Your task to perform on an android device: turn on bluetooth scan Image 0: 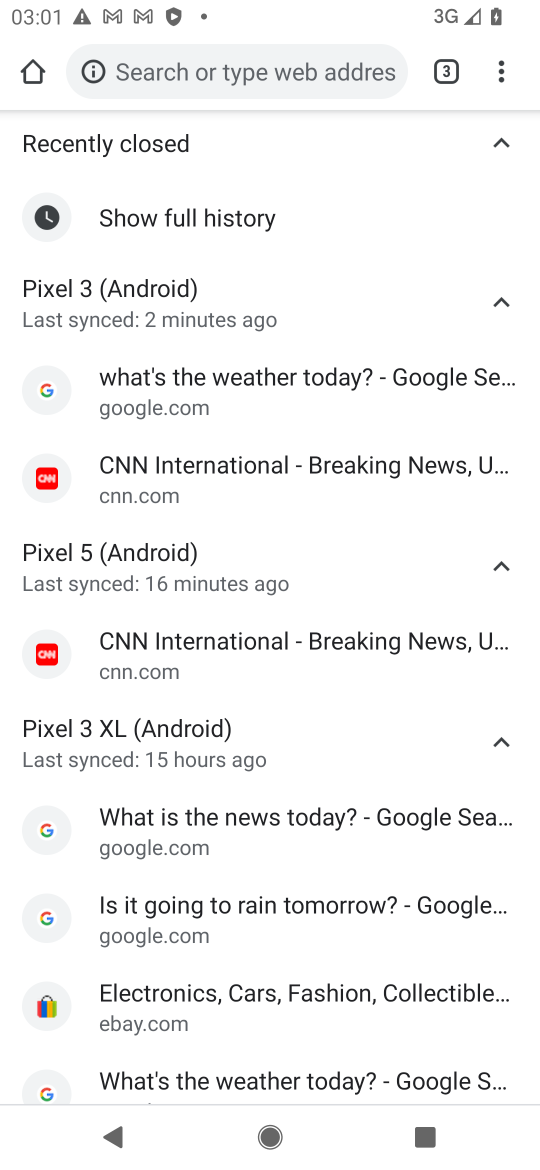
Step 0: press home button
Your task to perform on an android device: turn on bluetooth scan Image 1: 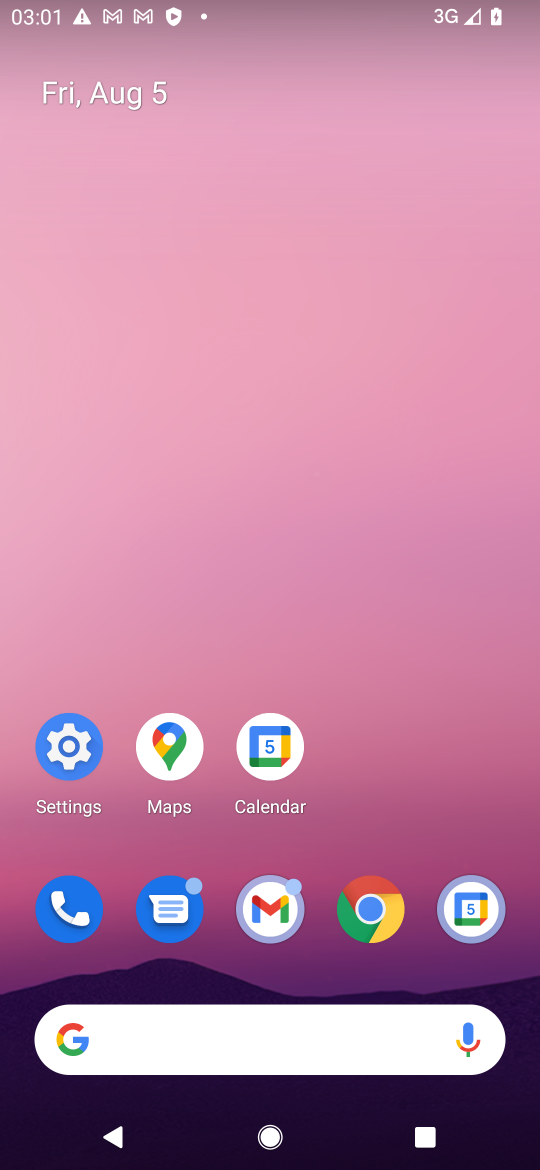
Step 1: click (69, 746)
Your task to perform on an android device: turn on bluetooth scan Image 2: 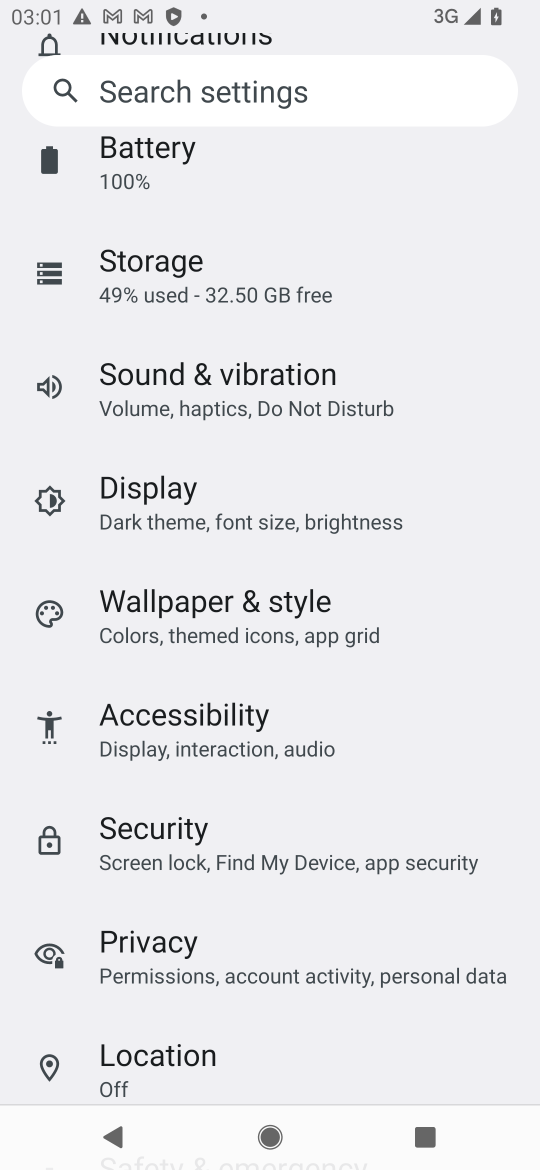
Step 2: drag from (361, 904) to (334, 412)
Your task to perform on an android device: turn on bluetooth scan Image 3: 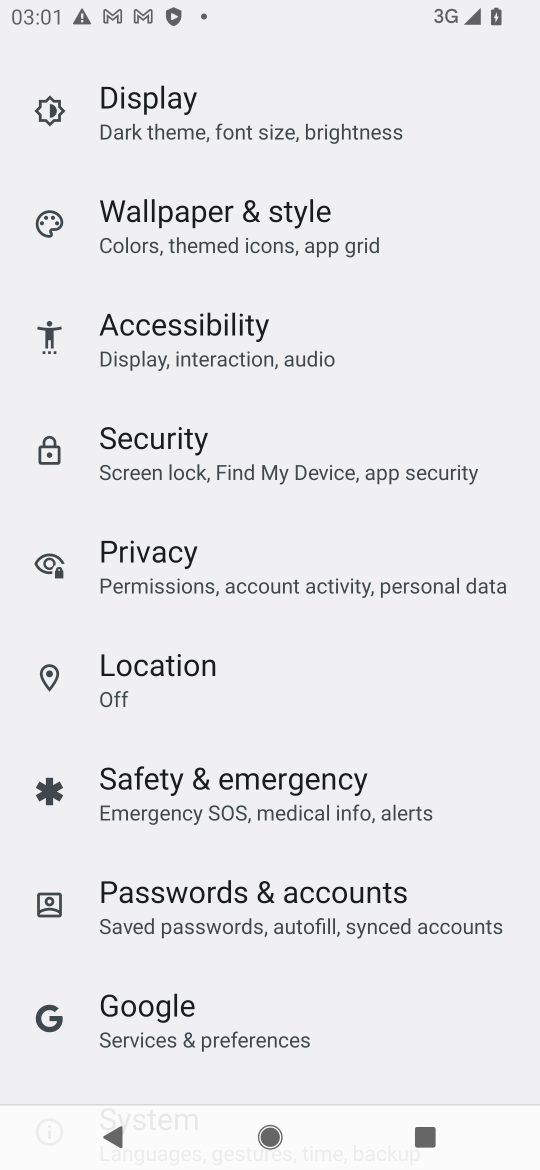
Step 3: click (176, 653)
Your task to perform on an android device: turn on bluetooth scan Image 4: 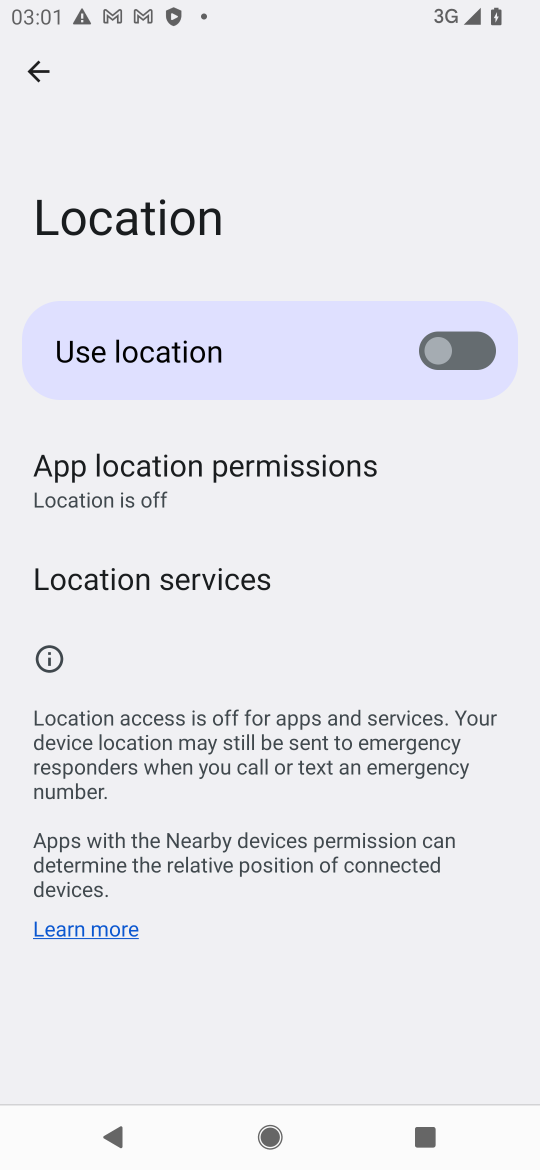
Step 4: click (153, 475)
Your task to perform on an android device: turn on bluetooth scan Image 5: 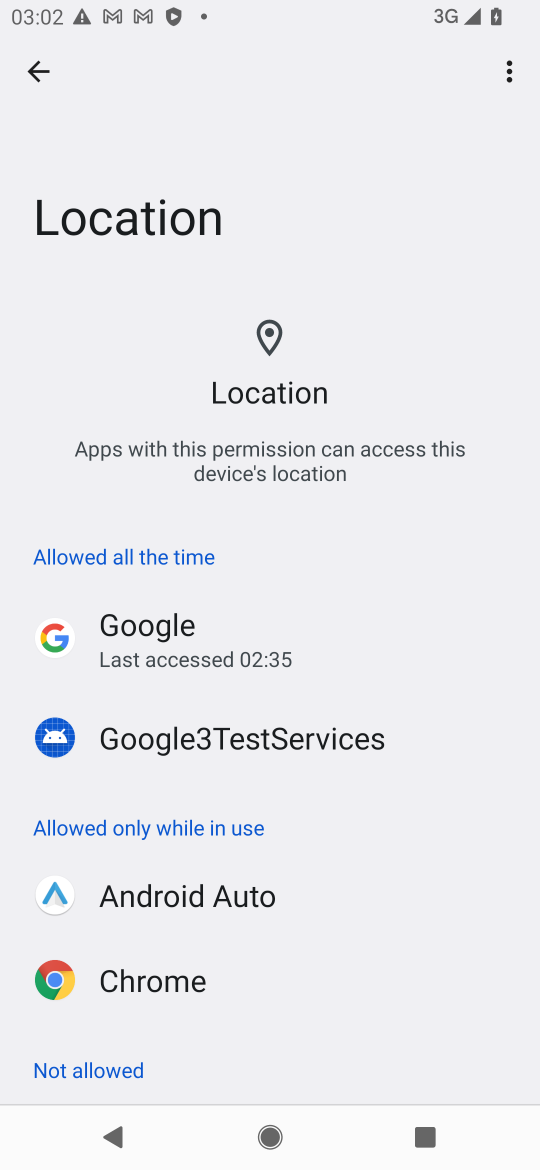
Step 5: drag from (320, 886) to (313, 416)
Your task to perform on an android device: turn on bluetooth scan Image 6: 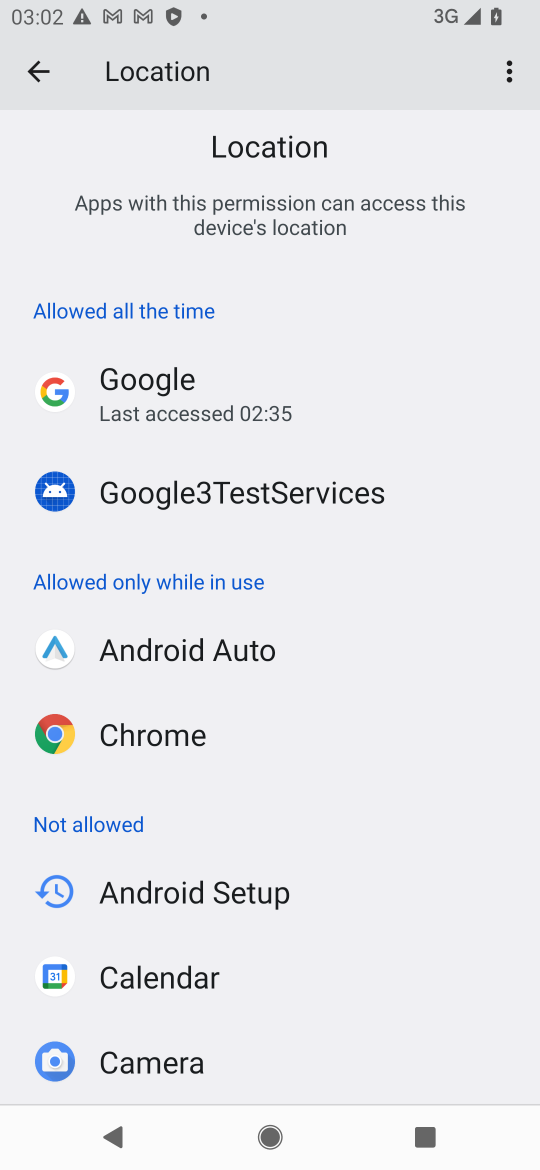
Step 6: drag from (407, 1016) to (380, 513)
Your task to perform on an android device: turn on bluetooth scan Image 7: 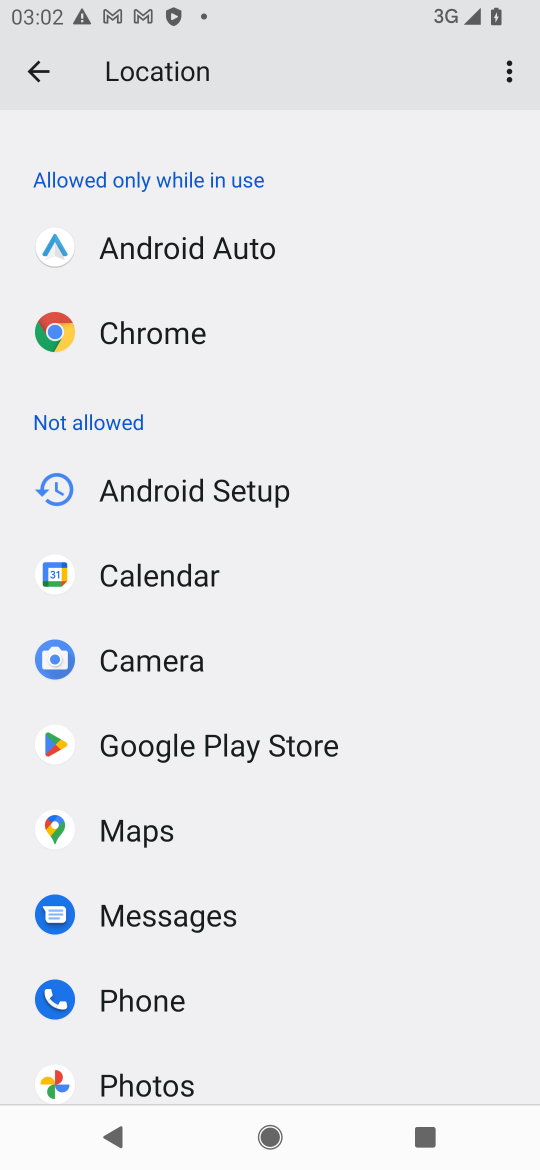
Step 7: click (31, 69)
Your task to perform on an android device: turn on bluetooth scan Image 8: 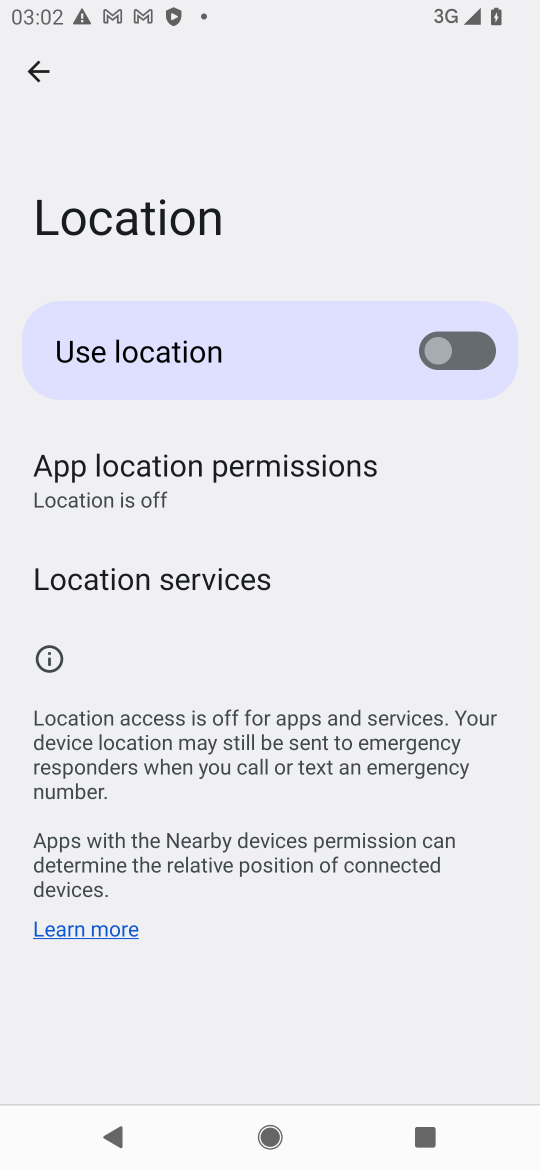
Step 8: click (130, 571)
Your task to perform on an android device: turn on bluetooth scan Image 9: 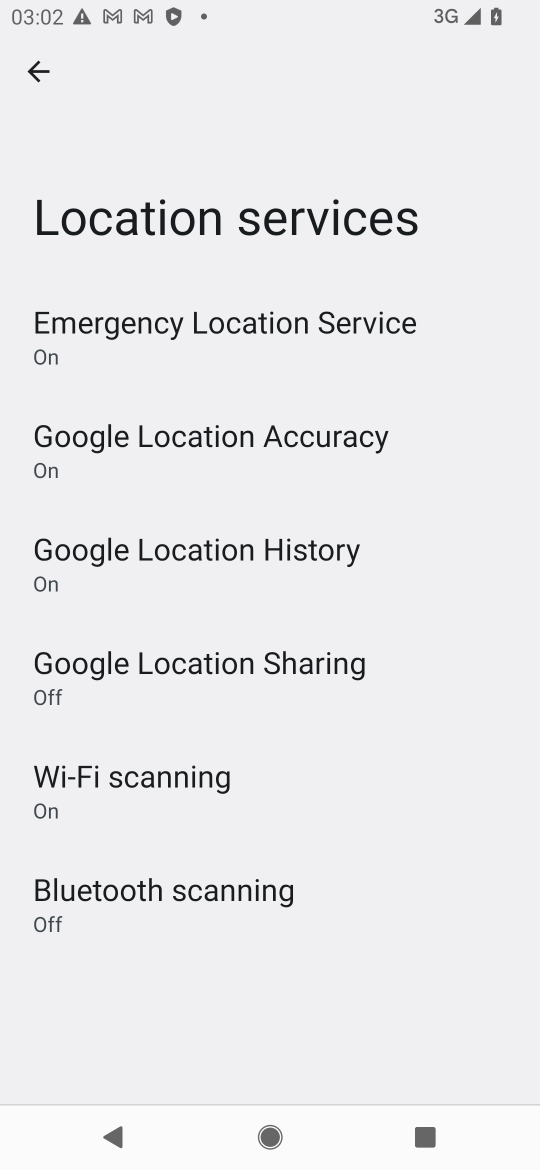
Step 9: click (170, 907)
Your task to perform on an android device: turn on bluetooth scan Image 10: 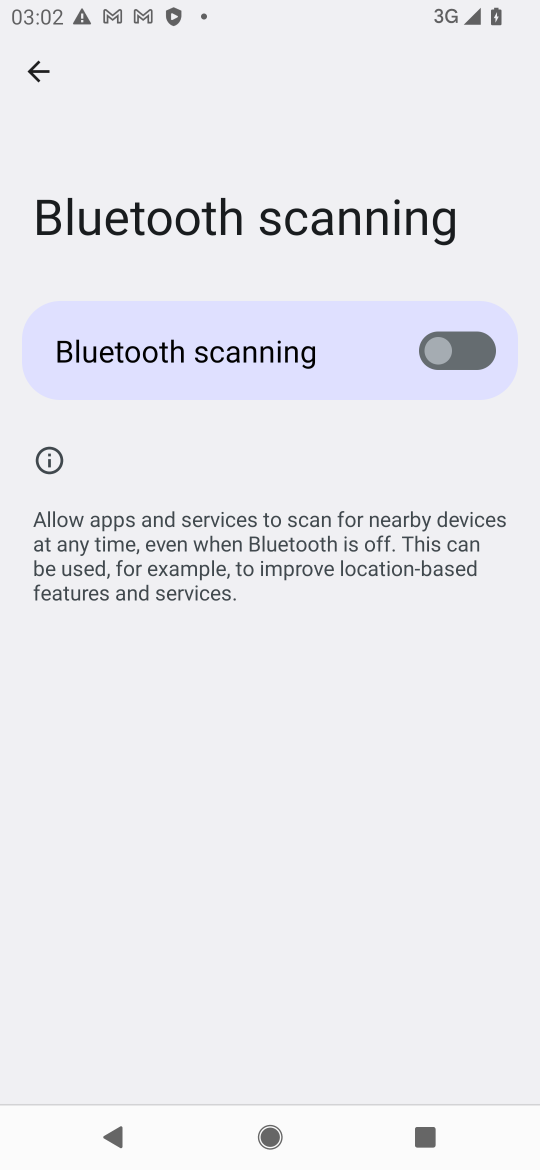
Step 10: click (436, 340)
Your task to perform on an android device: turn on bluetooth scan Image 11: 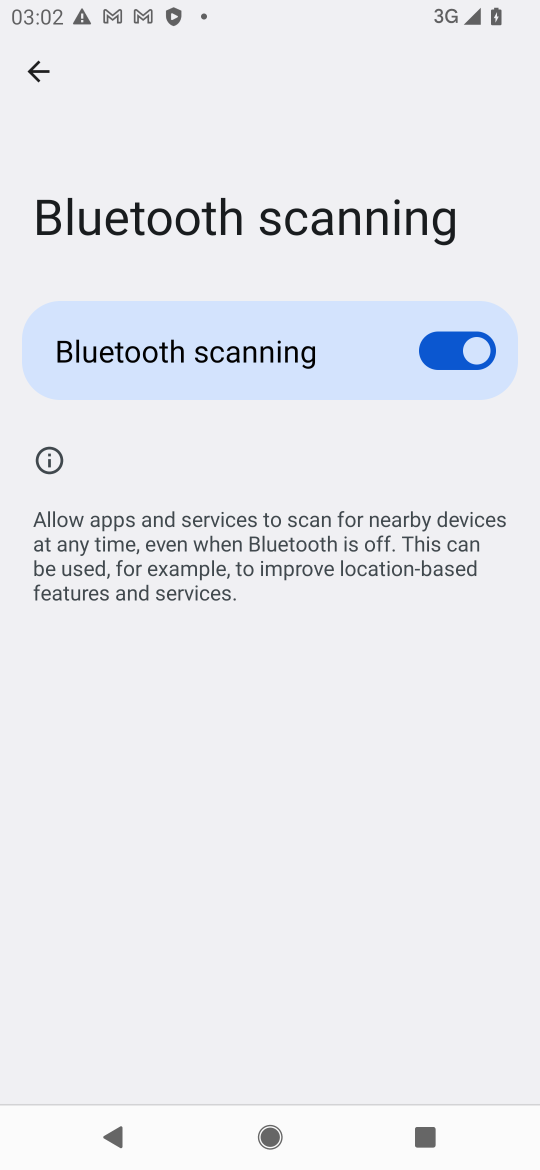
Step 11: task complete